Your task to perform on an android device: Go to wifi settings Image 0: 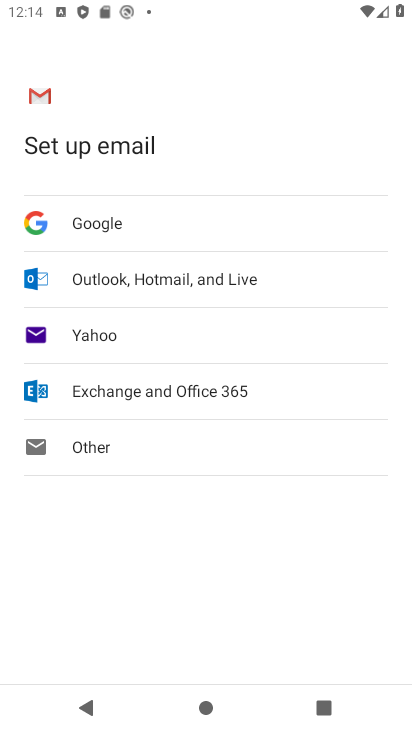
Step 0: press home button
Your task to perform on an android device: Go to wifi settings Image 1: 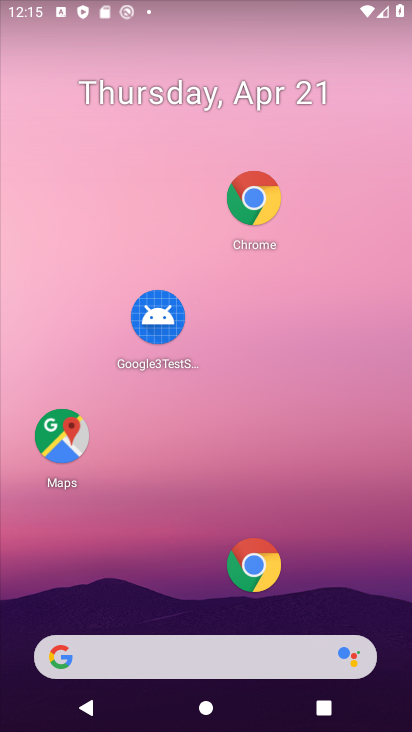
Step 1: drag from (175, 569) to (192, 139)
Your task to perform on an android device: Go to wifi settings Image 2: 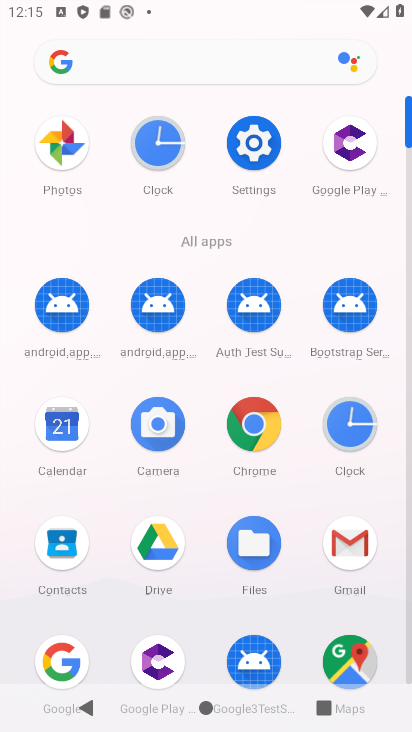
Step 2: click (241, 159)
Your task to perform on an android device: Go to wifi settings Image 3: 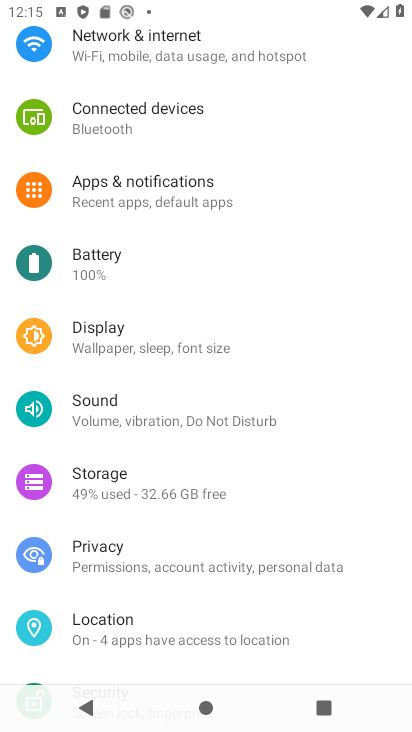
Step 3: drag from (223, 110) to (227, 434)
Your task to perform on an android device: Go to wifi settings Image 4: 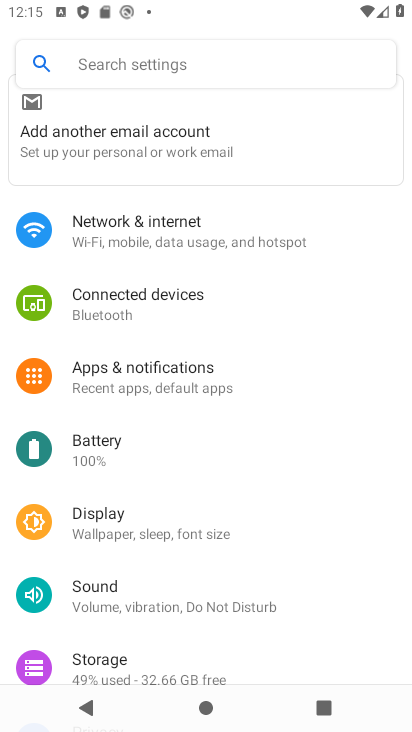
Step 4: click (203, 234)
Your task to perform on an android device: Go to wifi settings Image 5: 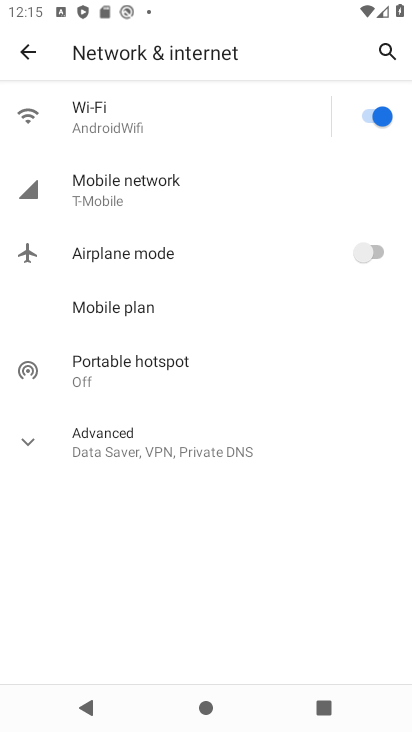
Step 5: click (129, 137)
Your task to perform on an android device: Go to wifi settings Image 6: 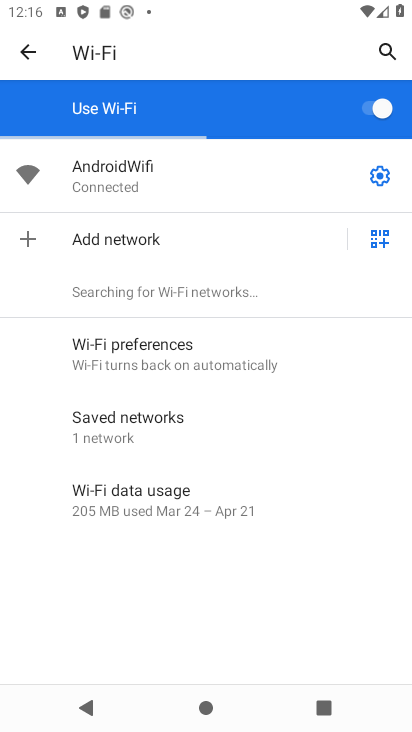
Step 6: task complete